Your task to perform on an android device: What's the weather today? Image 0: 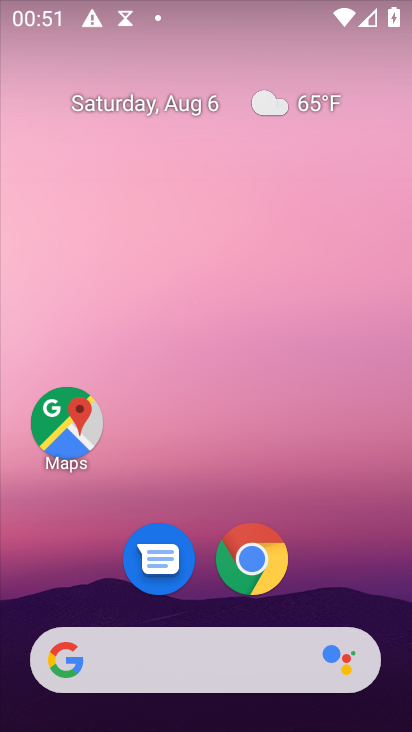
Step 0: click (276, 573)
Your task to perform on an android device: What's the weather today? Image 1: 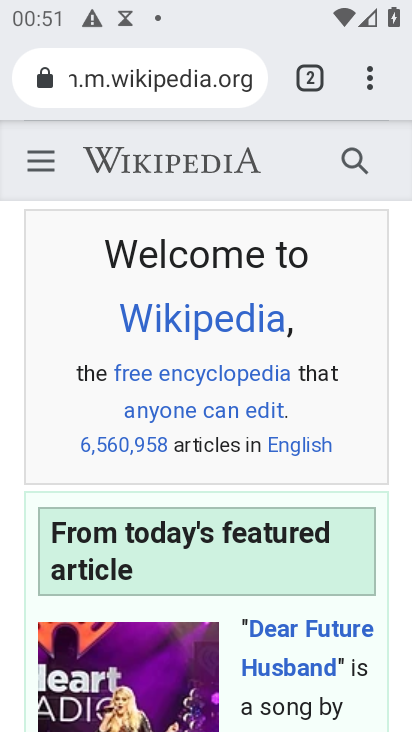
Step 1: click (128, 77)
Your task to perform on an android device: What's the weather today? Image 2: 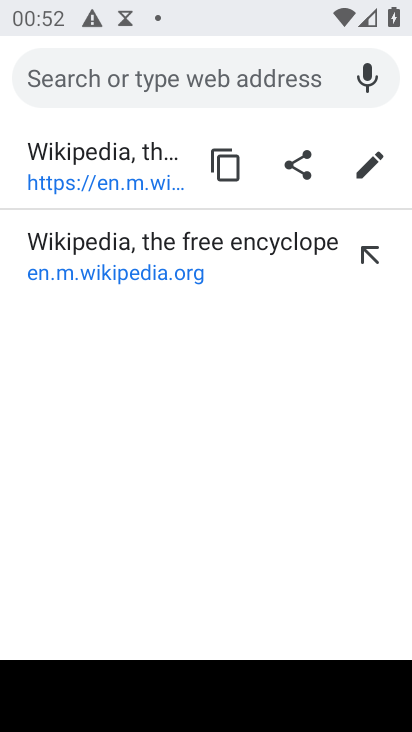
Step 2: type "What's the weather today?"
Your task to perform on an android device: What's the weather today? Image 3: 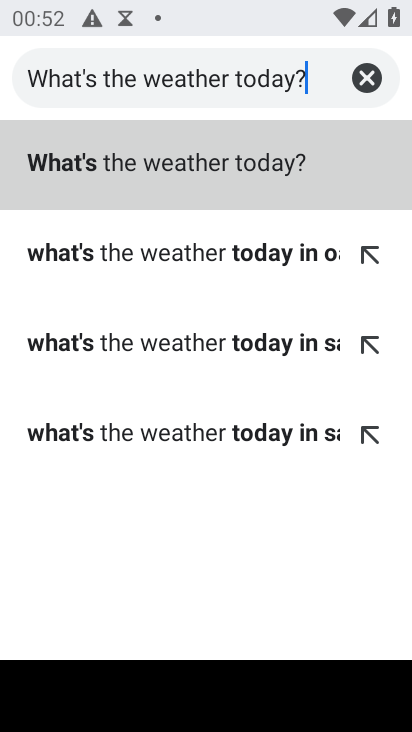
Step 3: click (246, 177)
Your task to perform on an android device: What's the weather today? Image 4: 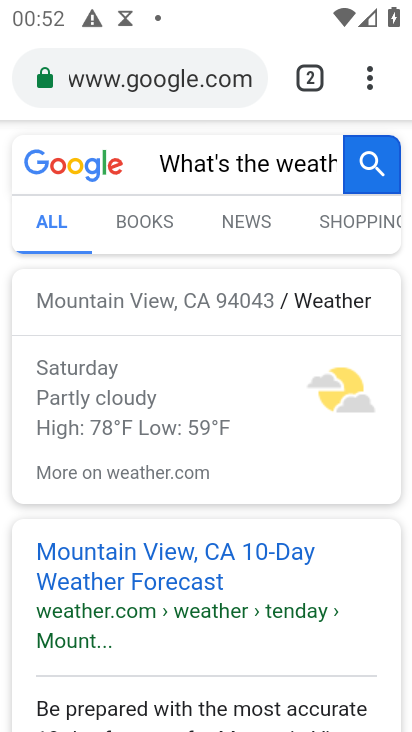
Step 4: task complete